Your task to perform on an android device: Is it going to rain today? Image 0: 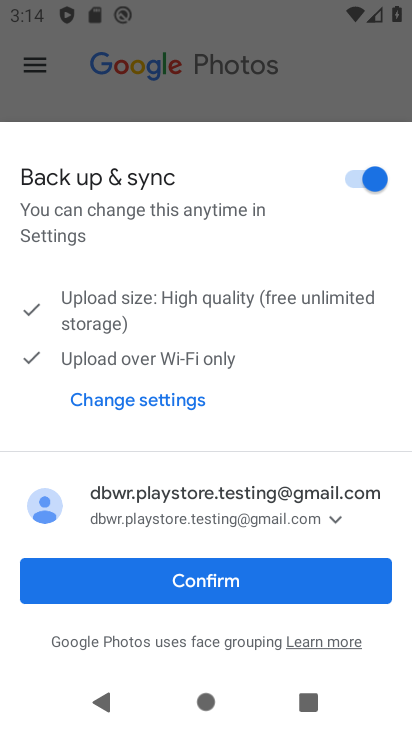
Step 0: press home button
Your task to perform on an android device: Is it going to rain today? Image 1: 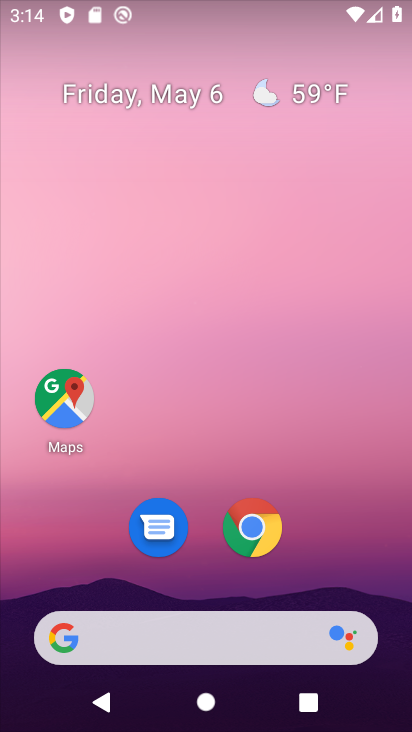
Step 1: click (314, 92)
Your task to perform on an android device: Is it going to rain today? Image 2: 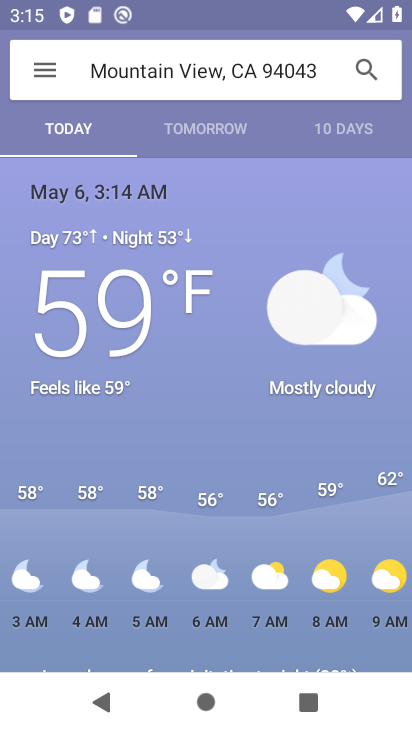
Step 2: task complete